Your task to perform on an android device: Go to battery settings Image 0: 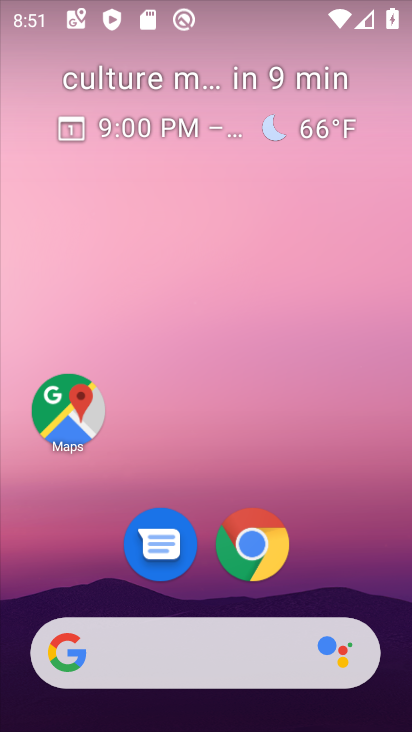
Step 0: drag from (180, 433) to (270, 3)
Your task to perform on an android device: Go to battery settings Image 1: 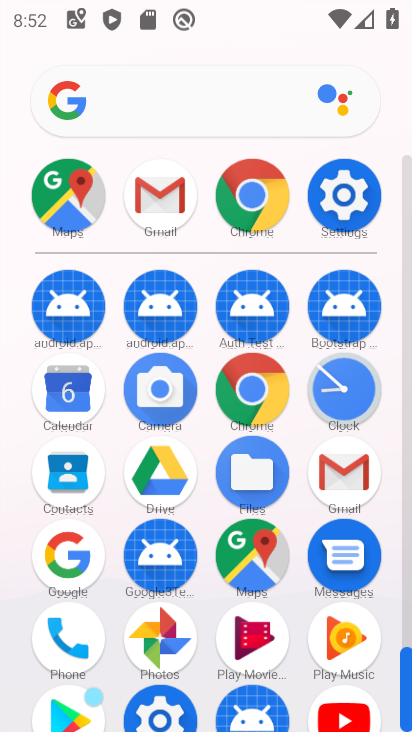
Step 1: click (352, 201)
Your task to perform on an android device: Go to battery settings Image 2: 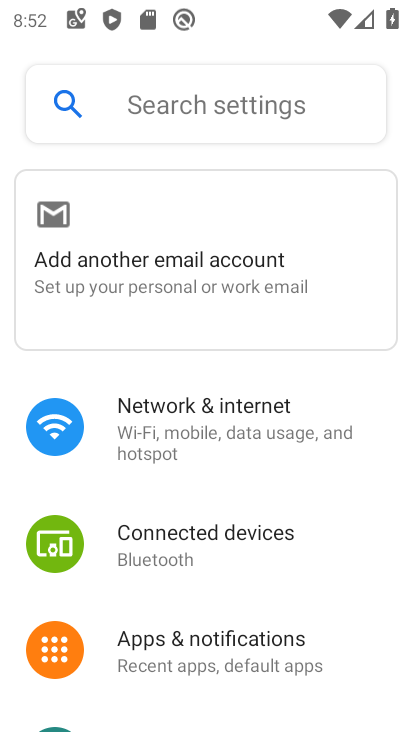
Step 2: drag from (253, 704) to (292, 272)
Your task to perform on an android device: Go to battery settings Image 3: 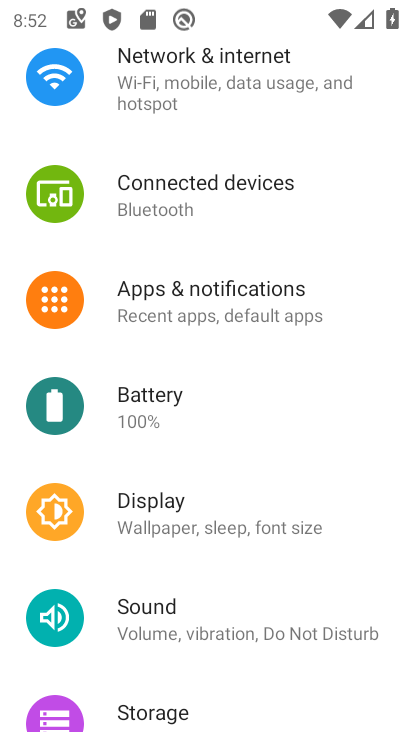
Step 3: click (175, 421)
Your task to perform on an android device: Go to battery settings Image 4: 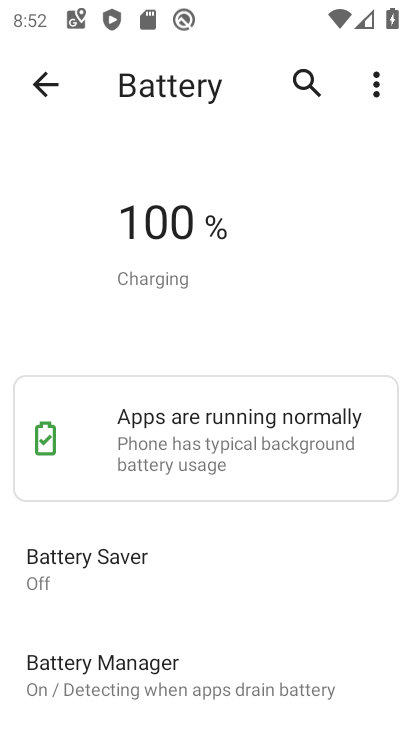
Step 4: task complete